Your task to perform on an android device: Do I have any events tomorrow? Image 0: 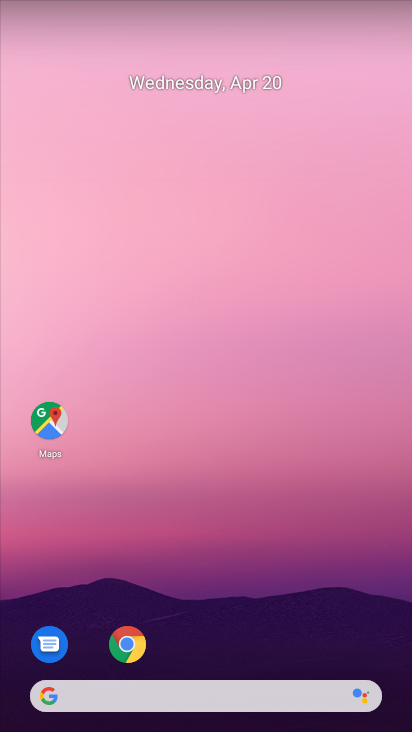
Step 0: drag from (326, 647) to (187, 182)
Your task to perform on an android device: Do I have any events tomorrow? Image 1: 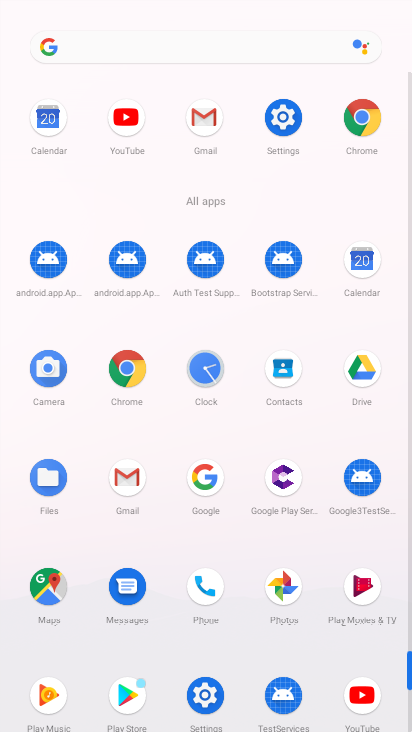
Step 1: click (360, 256)
Your task to perform on an android device: Do I have any events tomorrow? Image 2: 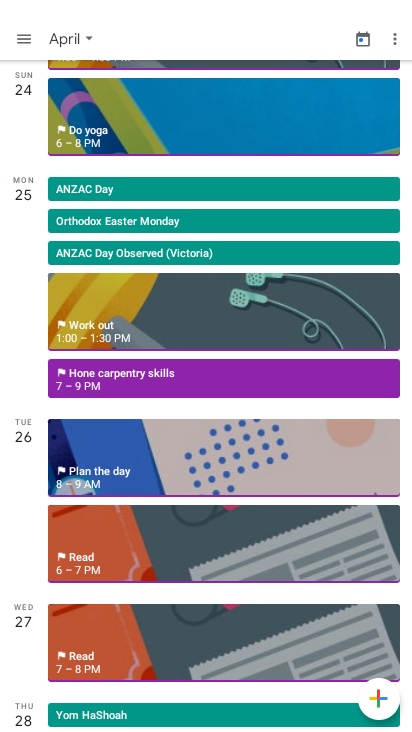
Step 2: click (18, 36)
Your task to perform on an android device: Do I have any events tomorrow? Image 3: 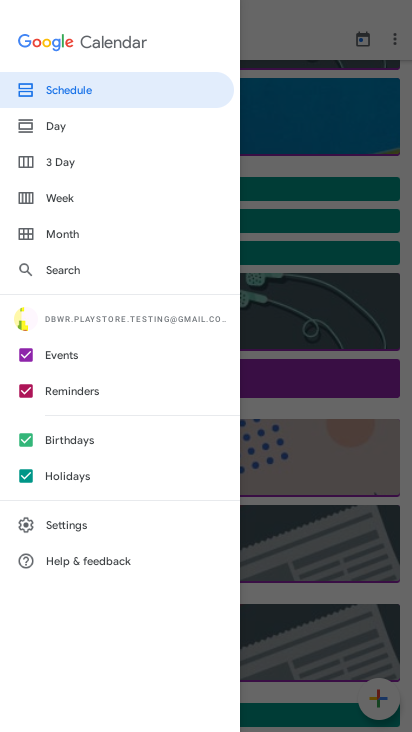
Step 3: click (61, 123)
Your task to perform on an android device: Do I have any events tomorrow? Image 4: 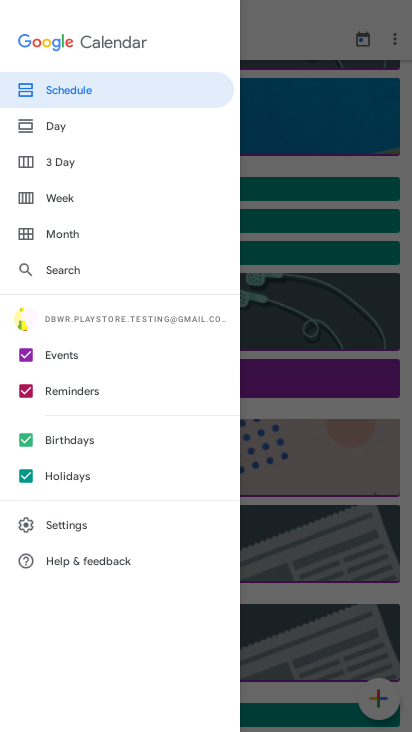
Step 4: click (53, 124)
Your task to perform on an android device: Do I have any events tomorrow? Image 5: 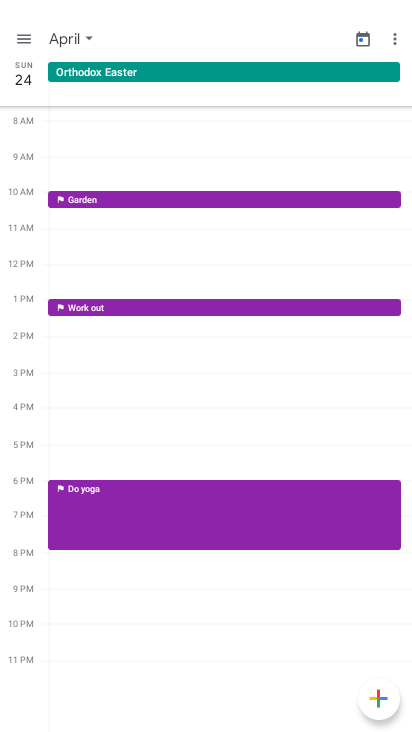
Step 5: click (85, 36)
Your task to perform on an android device: Do I have any events tomorrow? Image 6: 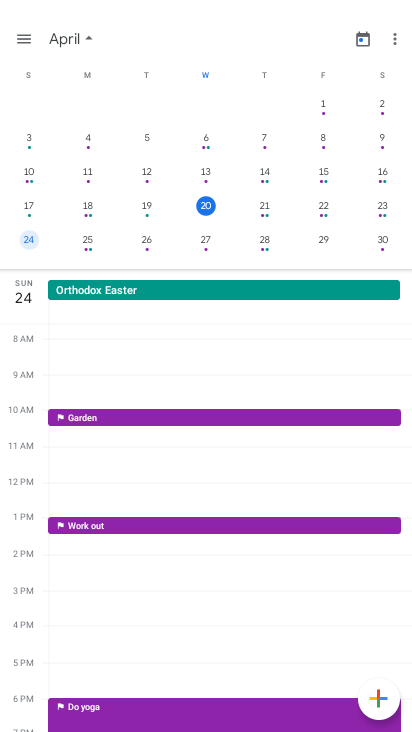
Step 6: click (264, 206)
Your task to perform on an android device: Do I have any events tomorrow? Image 7: 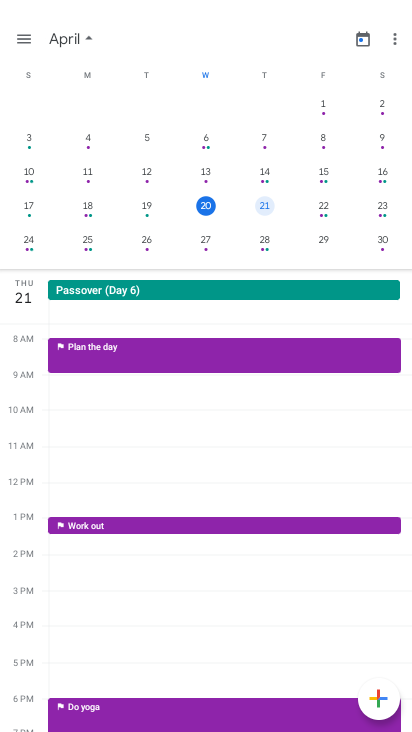
Step 7: click (179, 186)
Your task to perform on an android device: Do I have any events tomorrow? Image 8: 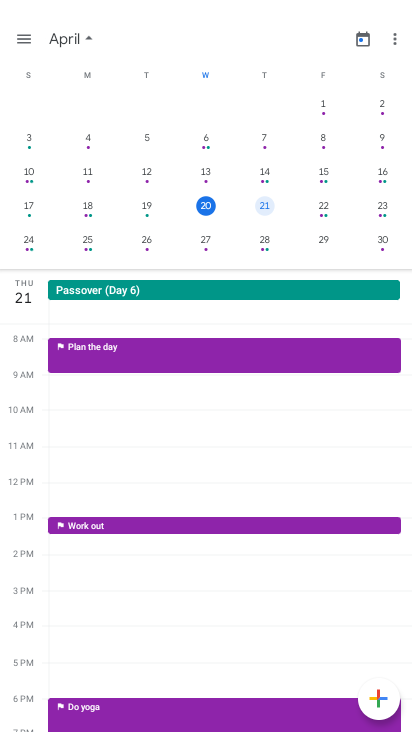
Step 8: task complete